Your task to perform on an android device: turn on notifications settings in the gmail app Image 0: 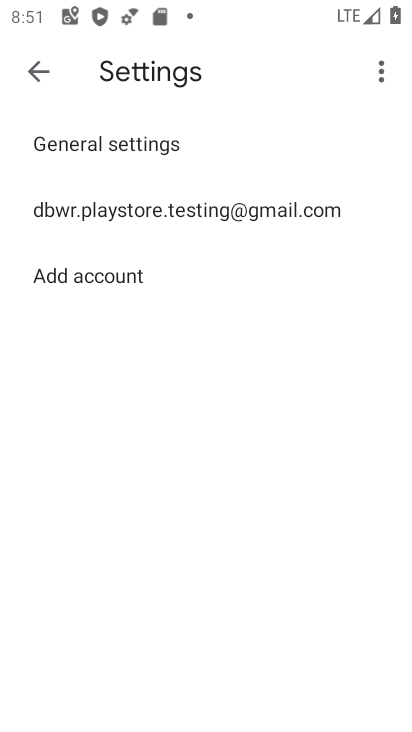
Step 0: press home button
Your task to perform on an android device: turn on notifications settings in the gmail app Image 1: 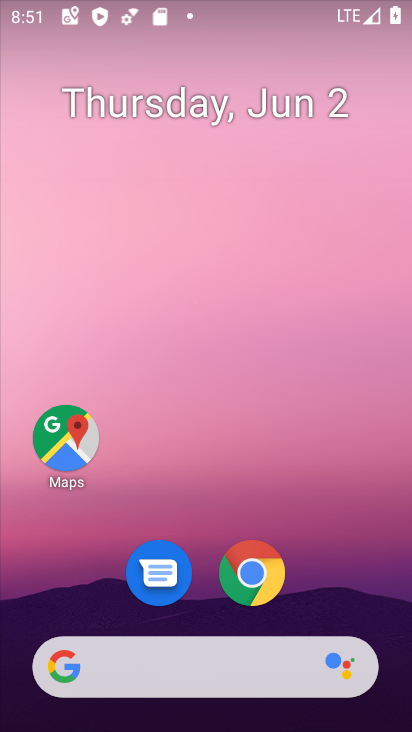
Step 1: drag from (383, 601) to (234, 42)
Your task to perform on an android device: turn on notifications settings in the gmail app Image 2: 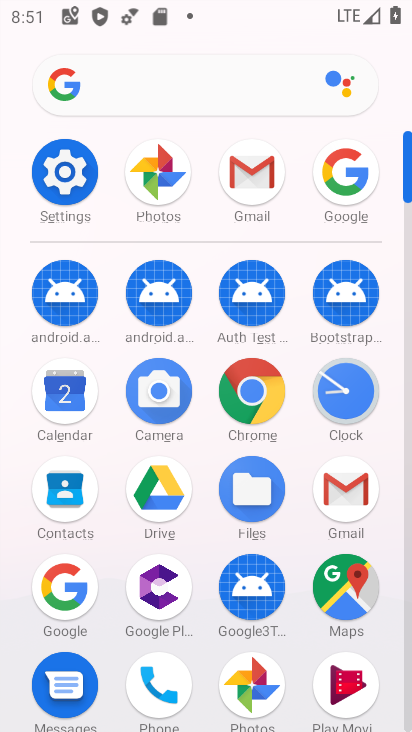
Step 2: click (245, 158)
Your task to perform on an android device: turn on notifications settings in the gmail app Image 3: 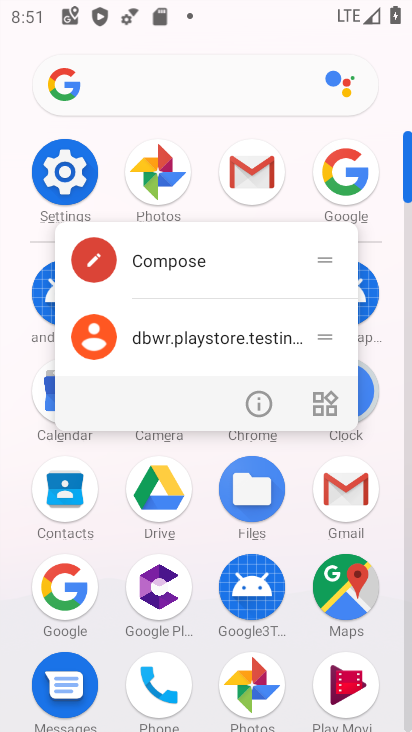
Step 3: click (253, 393)
Your task to perform on an android device: turn on notifications settings in the gmail app Image 4: 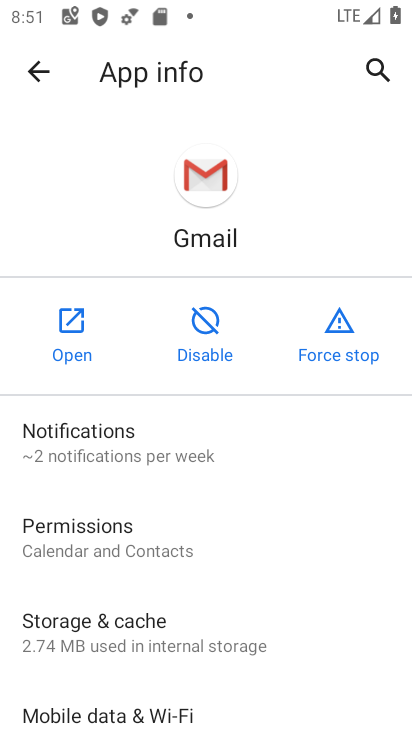
Step 4: click (111, 450)
Your task to perform on an android device: turn on notifications settings in the gmail app Image 5: 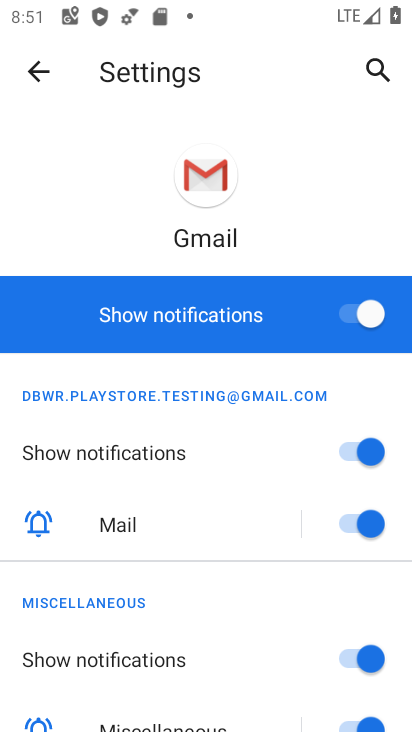
Step 5: task complete